Your task to perform on an android device: add a label to a message in the gmail app Image 0: 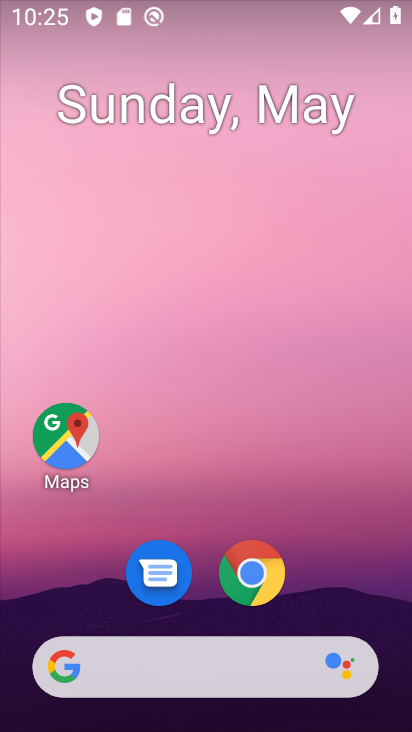
Step 0: drag from (334, 610) to (200, 93)
Your task to perform on an android device: add a label to a message in the gmail app Image 1: 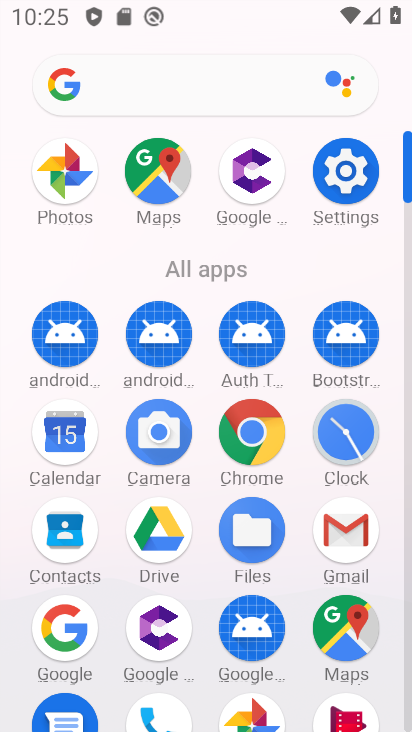
Step 1: click (329, 534)
Your task to perform on an android device: add a label to a message in the gmail app Image 2: 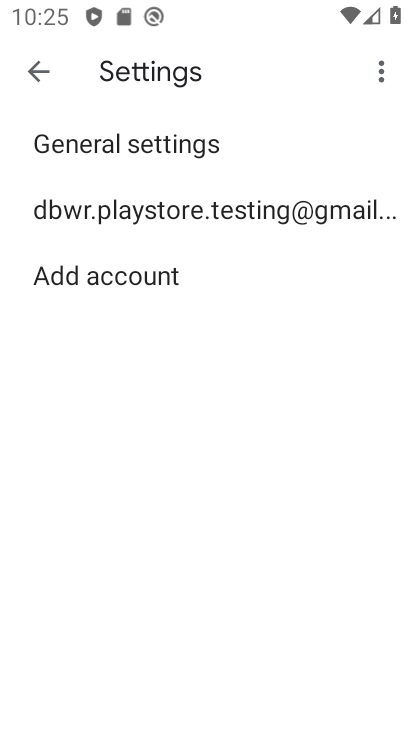
Step 2: click (329, 534)
Your task to perform on an android device: add a label to a message in the gmail app Image 3: 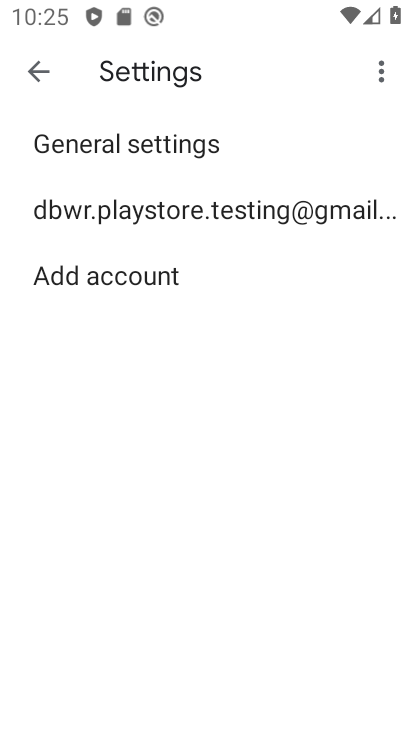
Step 3: click (329, 534)
Your task to perform on an android device: add a label to a message in the gmail app Image 4: 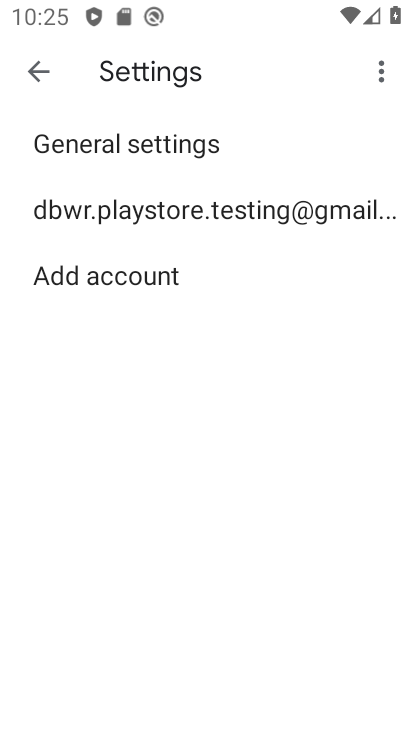
Step 4: click (39, 75)
Your task to perform on an android device: add a label to a message in the gmail app Image 5: 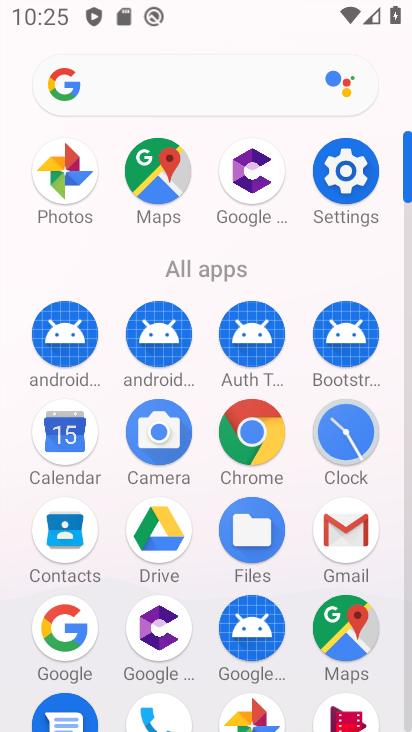
Step 5: click (352, 530)
Your task to perform on an android device: add a label to a message in the gmail app Image 6: 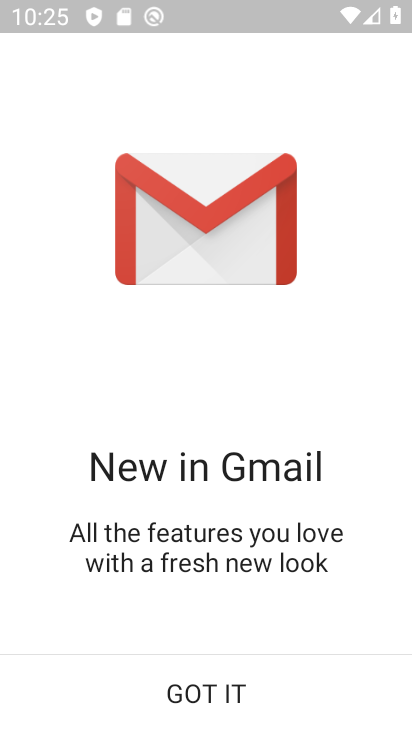
Step 6: click (179, 723)
Your task to perform on an android device: add a label to a message in the gmail app Image 7: 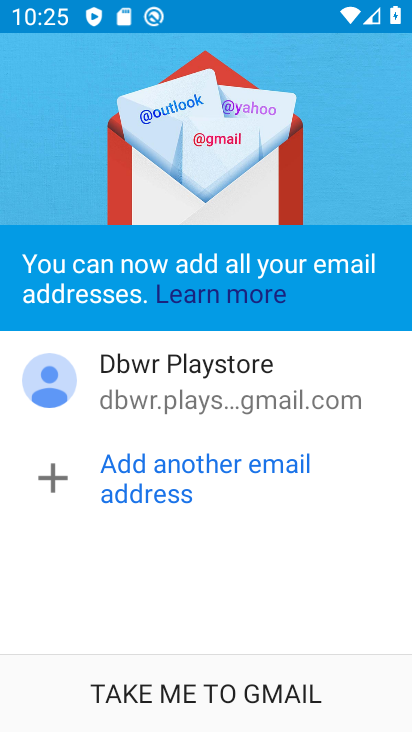
Step 7: click (179, 723)
Your task to perform on an android device: add a label to a message in the gmail app Image 8: 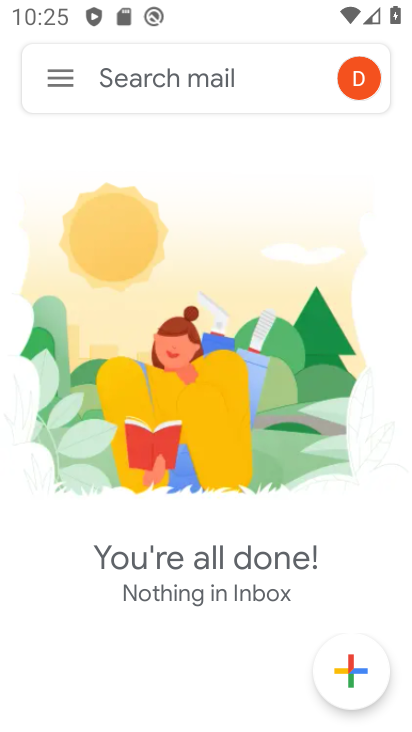
Step 8: click (64, 94)
Your task to perform on an android device: add a label to a message in the gmail app Image 9: 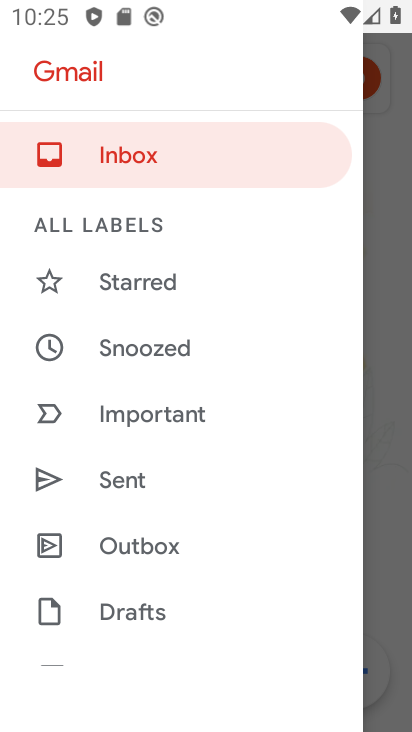
Step 9: drag from (262, 620) to (220, 217)
Your task to perform on an android device: add a label to a message in the gmail app Image 10: 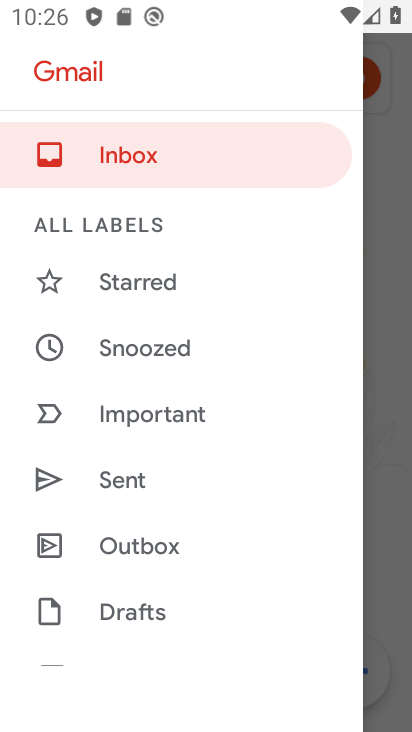
Step 10: drag from (322, 633) to (222, 62)
Your task to perform on an android device: add a label to a message in the gmail app Image 11: 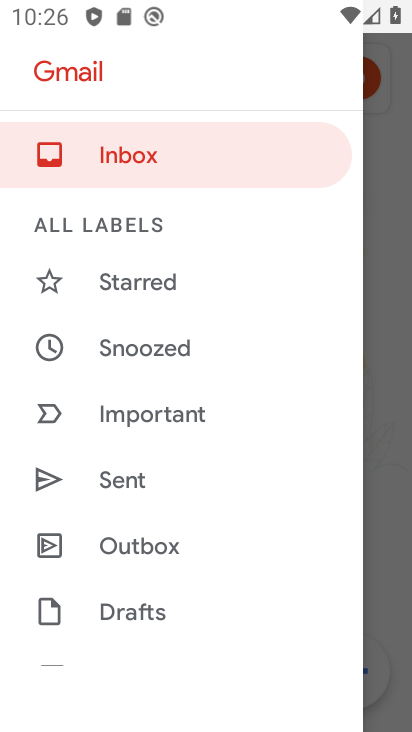
Step 11: drag from (324, 682) to (193, 269)
Your task to perform on an android device: add a label to a message in the gmail app Image 12: 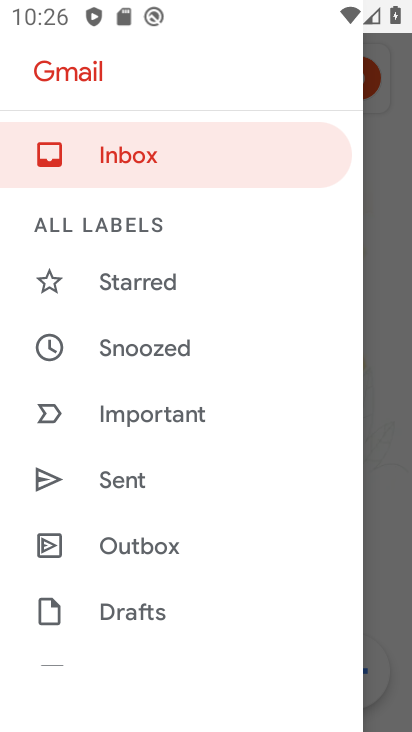
Step 12: drag from (301, 518) to (291, 177)
Your task to perform on an android device: add a label to a message in the gmail app Image 13: 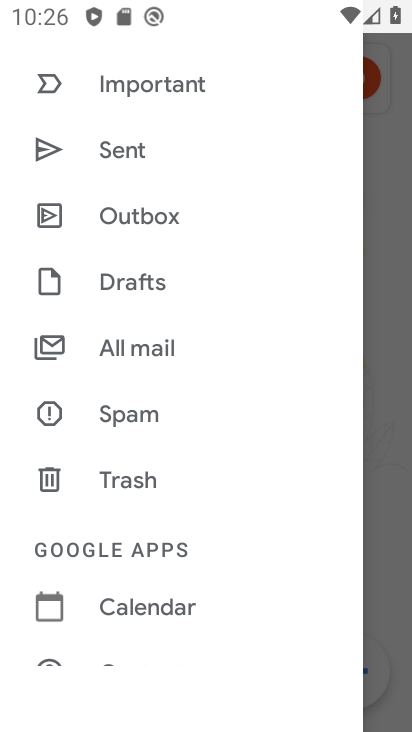
Step 13: click (210, 351)
Your task to perform on an android device: add a label to a message in the gmail app Image 14: 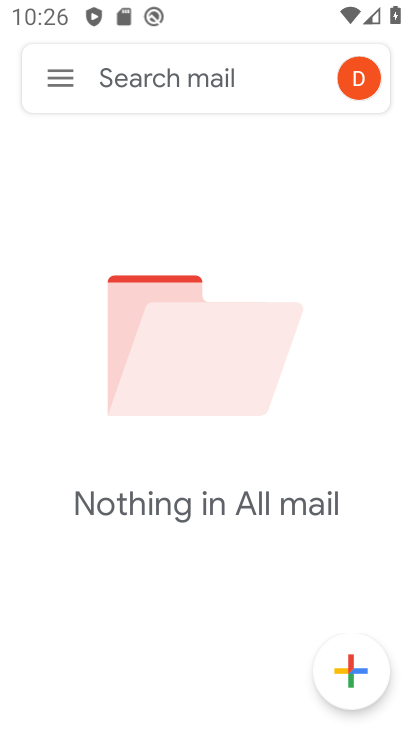
Step 14: task complete